Your task to perform on an android device: Add "usb-c" to the cart on target Image 0: 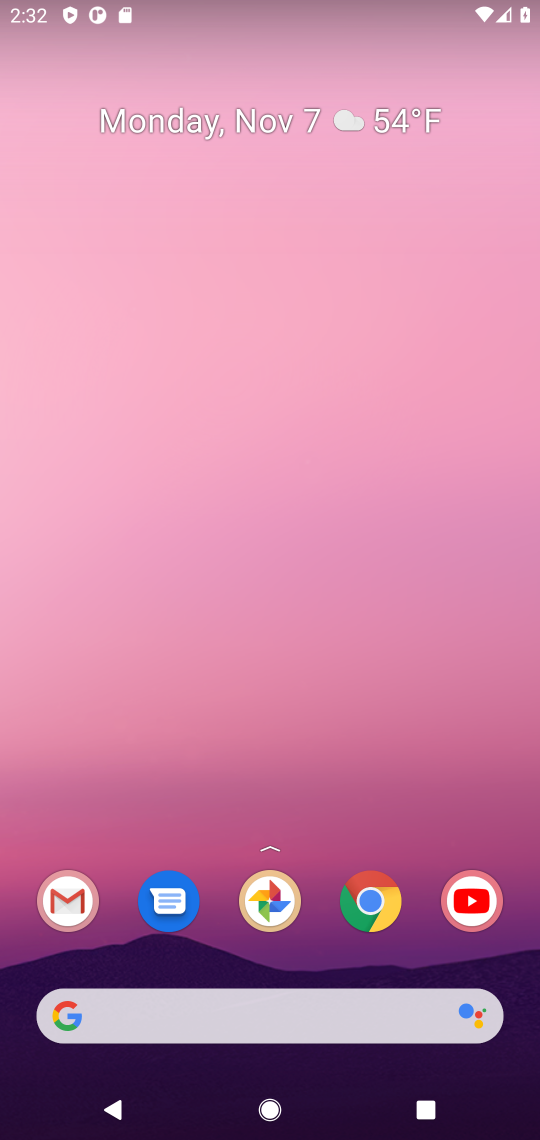
Step 0: click (370, 915)
Your task to perform on an android device: Add "usb-c" to the cart on target Image 1: 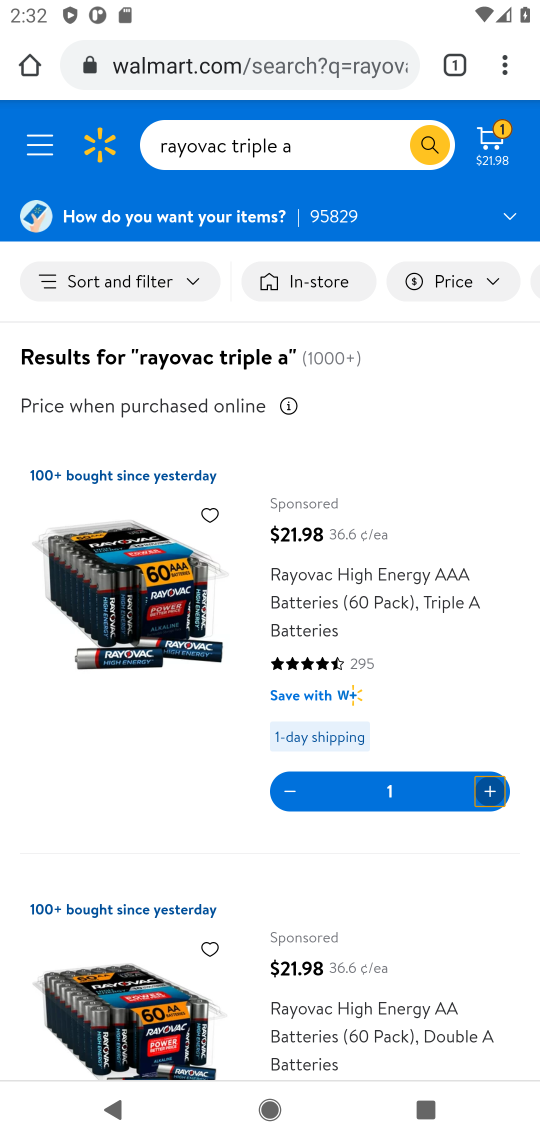
Step 1: click (218, 67)
Your task to perform on an android device: Add "usb-c" to the cart on target Image 2: 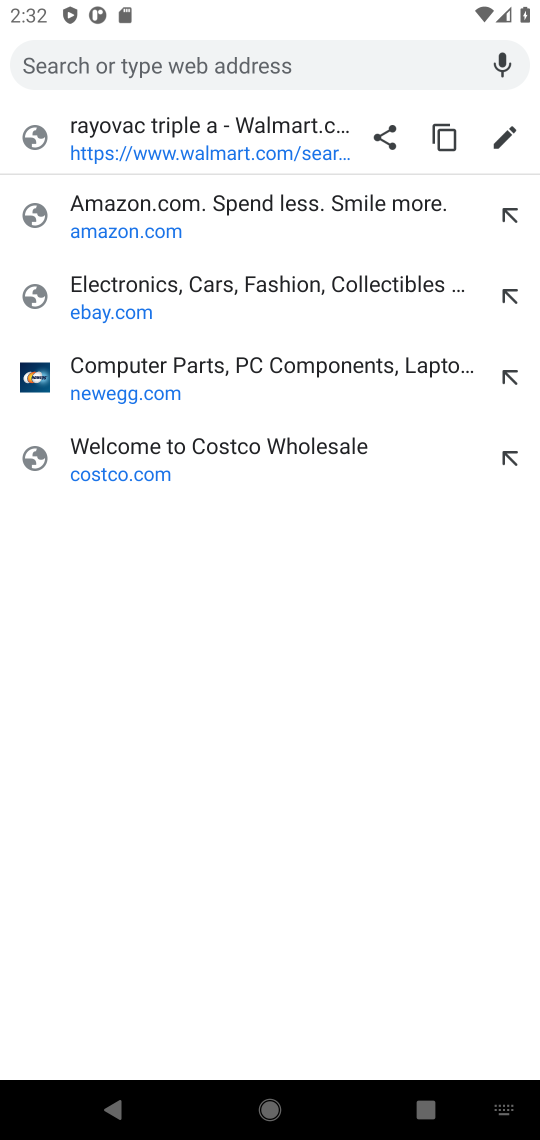
Step 2: type "target.com"
Your task to perform on an android device: Add "usb-c" to the cart on target Image 3: 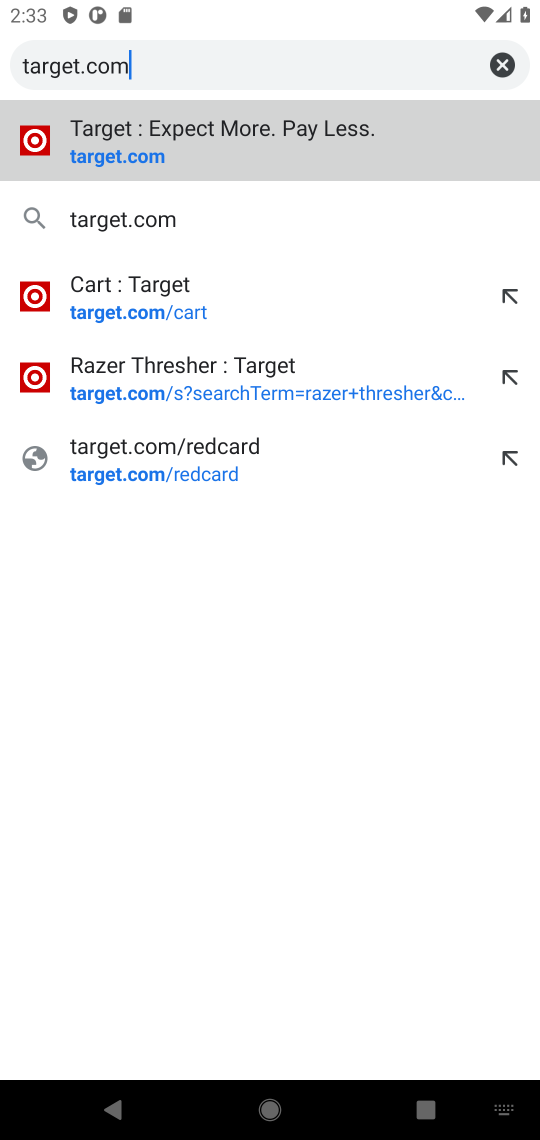
Step 3: click (105, 157)
Your task to perform on an android device: Add "usb-c" to the cart on target Image 4: 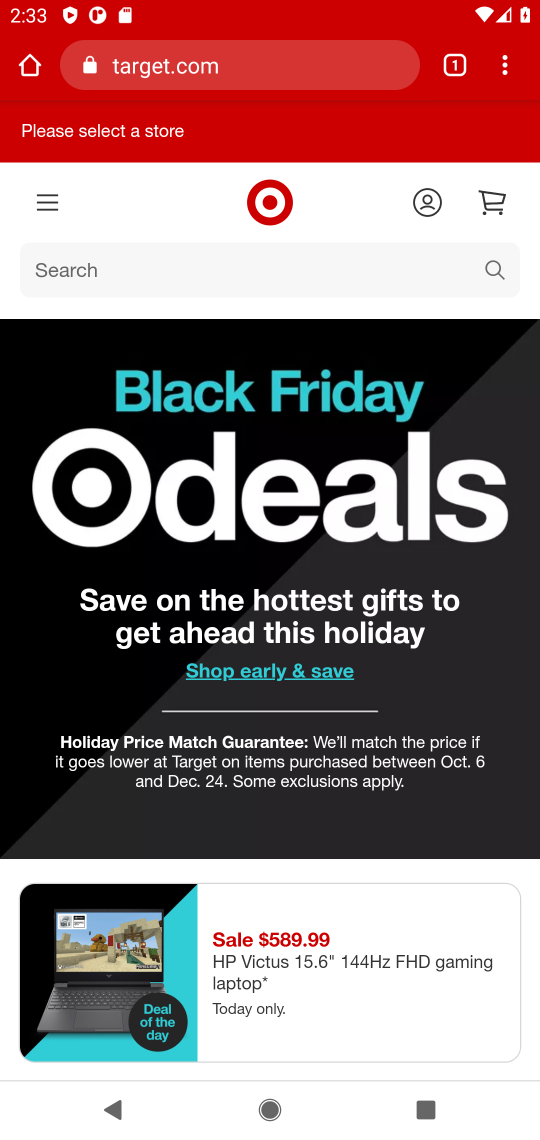
Step 4: click (501, 276)
Your task to perform on an android device: Add "usb-c" to the cart on target Image 5: 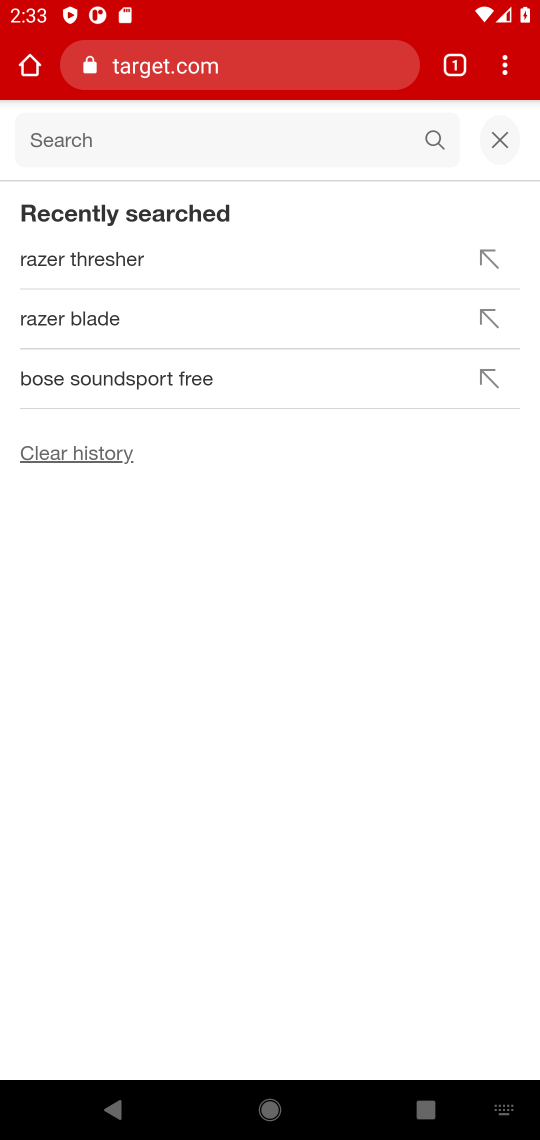
Step 5: type "usb-c"
Your task to perform on an android device: Add "usb-c" to the cart on target Image 6: 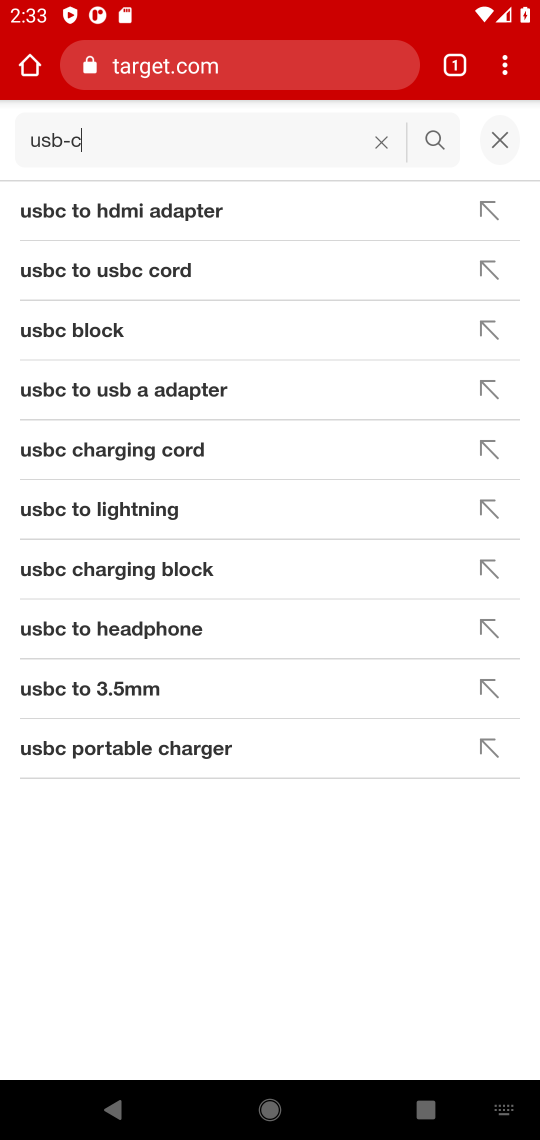
Step 6: click (435, 142)
Your task to perform on an android device: Add "usb-c" to the cart on target Image 7: 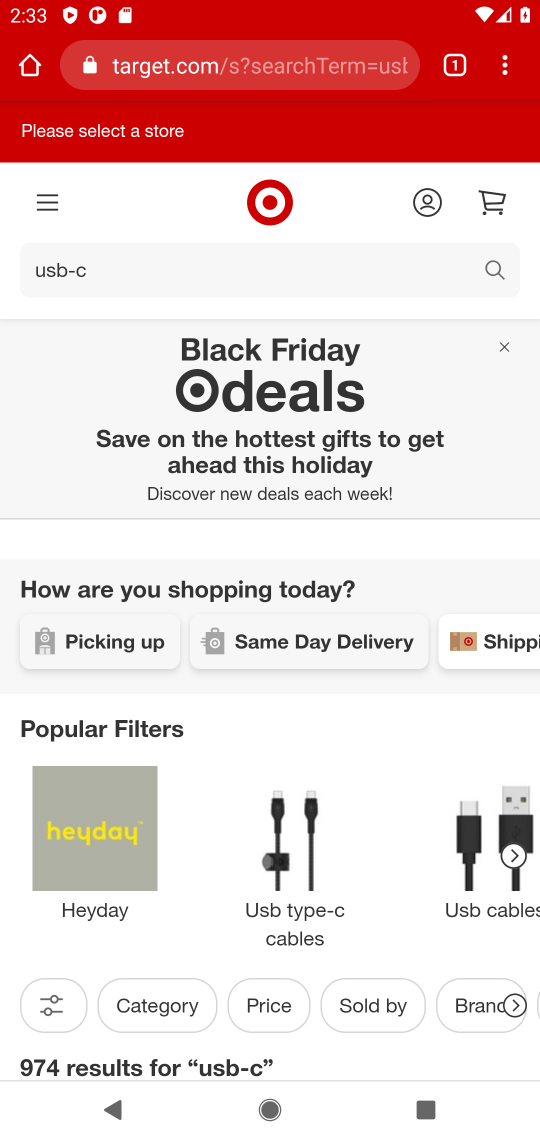
Step 7: drag from (219, 907) to (197, 363)
Your task to perform on an android device: Add "usb-c" to the cart on target Image 8: 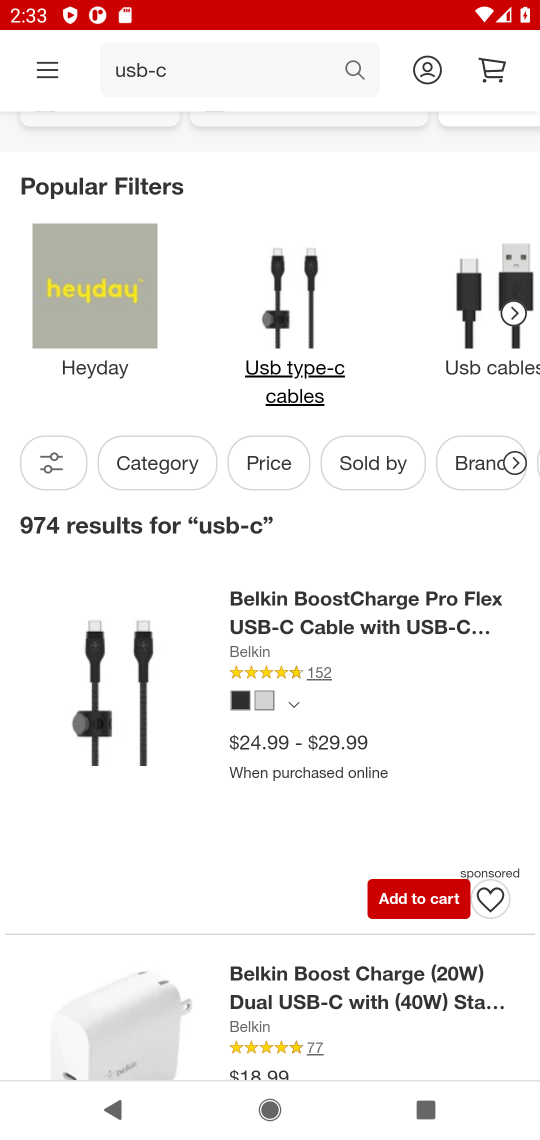
Step 8: click (251, 672)
Your task to perform on an android device: Add "usb-c" to the cart on target Image 9: 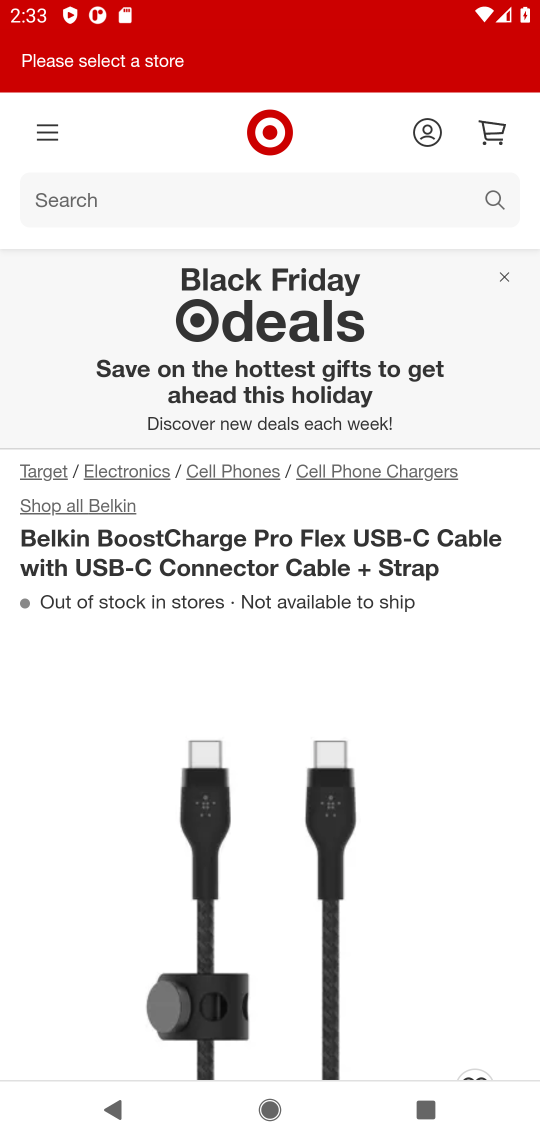
Step 9: drag from (262, 868) to (222, 450)
Your task to perform on an android device: Add "usb-c" to the cart on target Image 10: 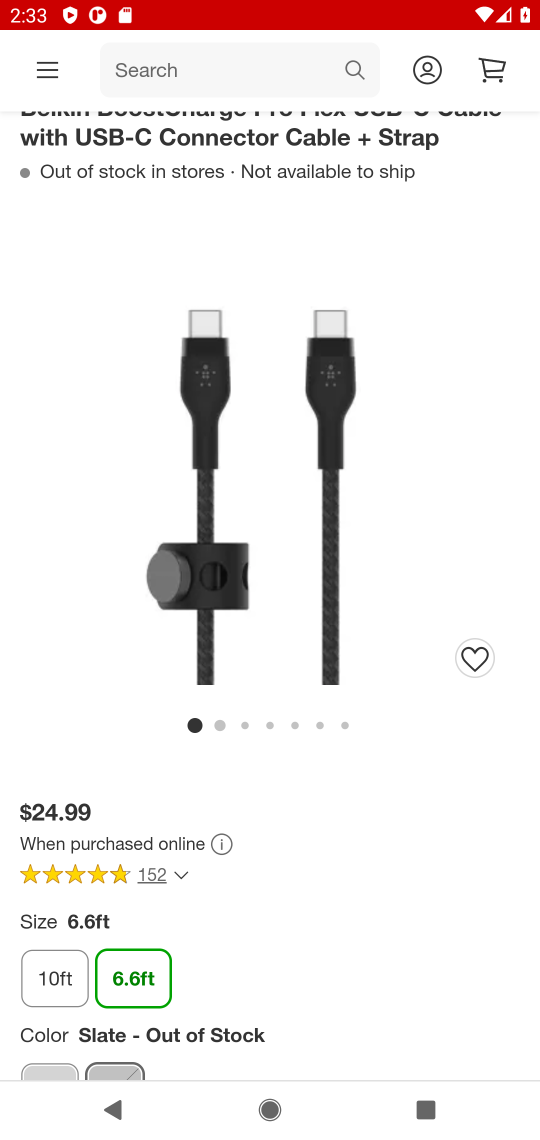
Step 10: drag from (236, 926) to (206, 552)
Your task to perform on an android device: Add "usb-c" to the cart on target Image 11: 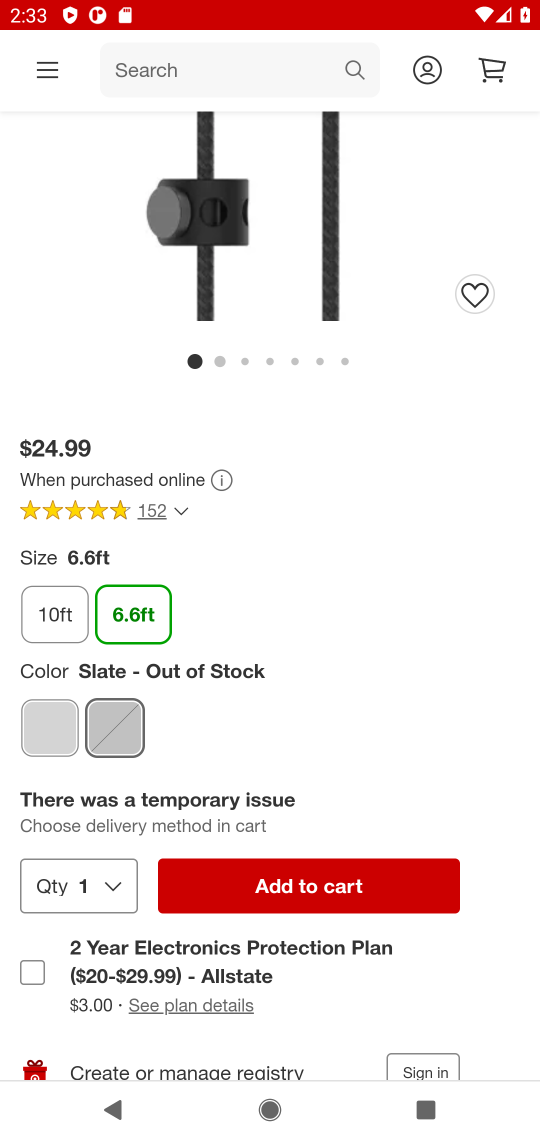
Step 11: click (277, 888)
Your task to perform on an android device: Add "usb-c" to the cart on target Image 12: 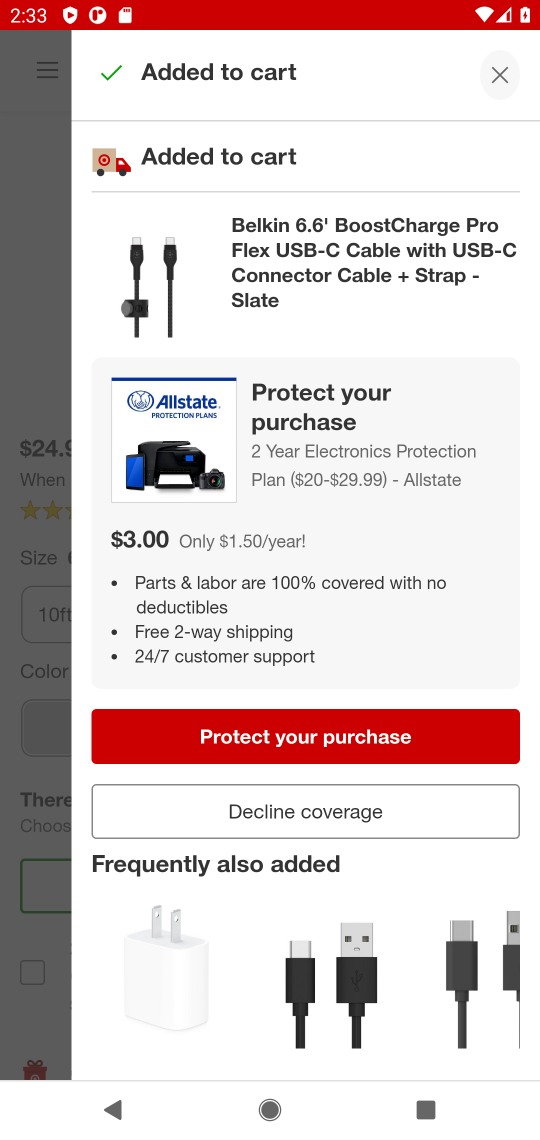
Step 12: task complete